Your task to perform on an android device: Open the Play Movies app and select the watchlist tab. Image 0: 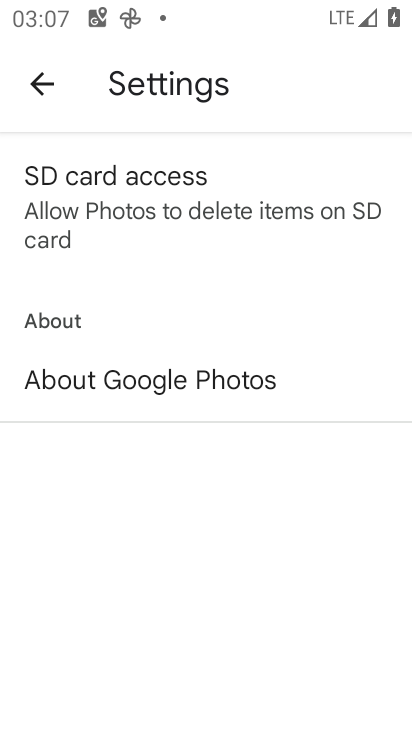
Step 0: press home button
Your task to perform on an android device: Open the Play Movies app and select the watchlist tab. Image 1: 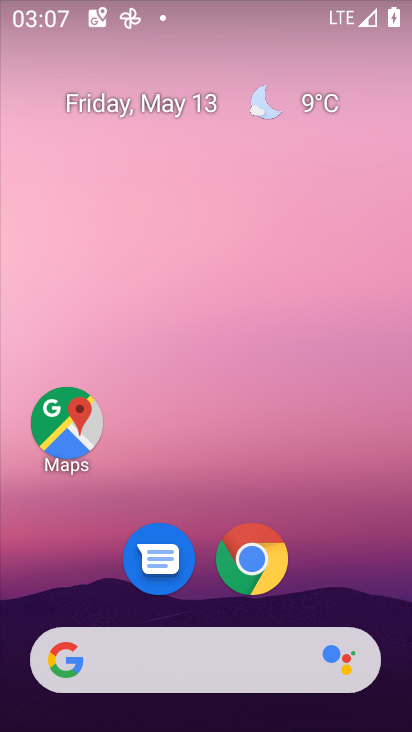
Step 1: drag from (403, 434) to (407, 306)
Your task to perform on an android device: Open the Play Movies app and select the watchlist tab. Image 2: 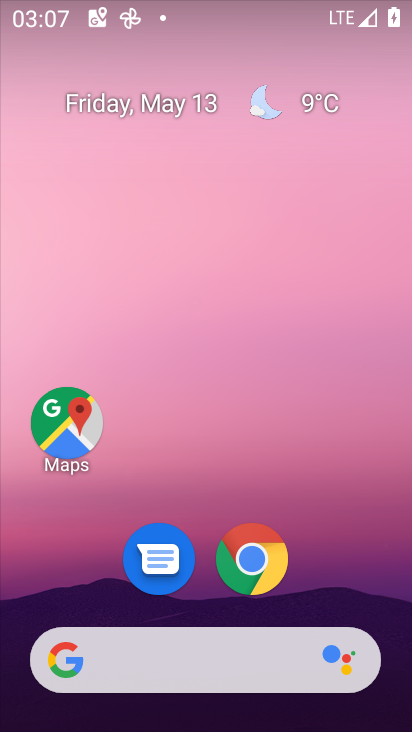
Step 2: drag from (407, 429) to (403, 265)
Your task to perform on an android device: Open the Play Movies app and select the watchlist tab. Image 3: 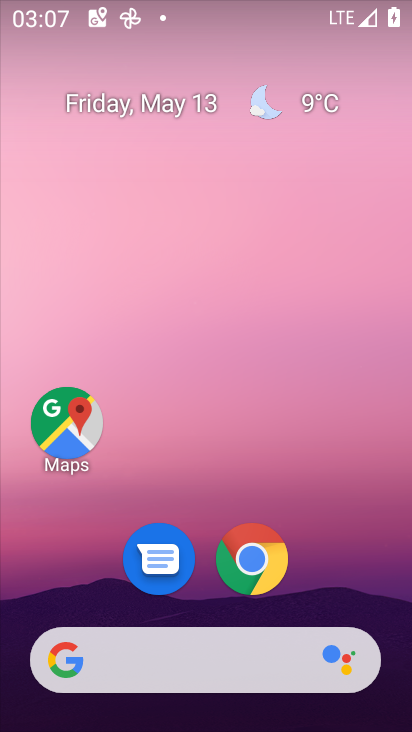
Step 3: drag from (392, 641) to (407, 179)
Your task to perform on an android device: Open the Play Movies app and select the watchlist tab. Image 4: 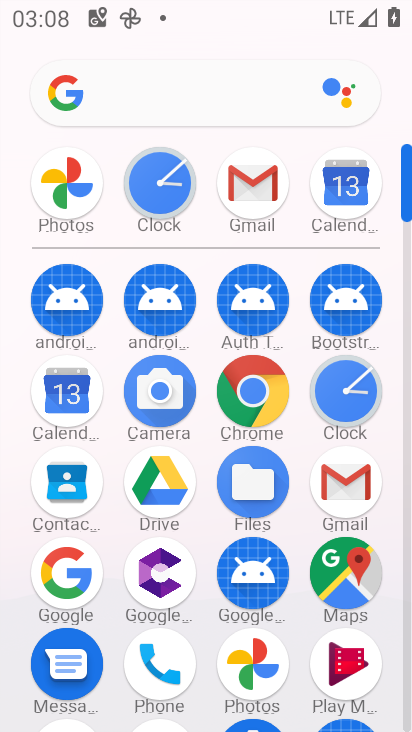
Step 4: click (332, 672)
Your task to perform on an android device: Open the Play Movies app and select the watchlist tab. Image 5: 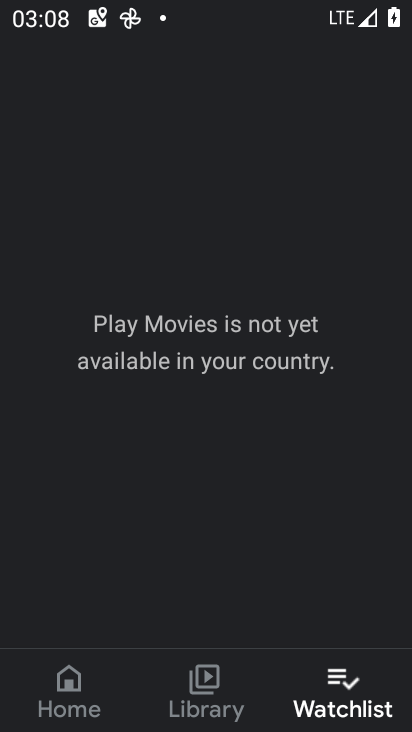
Step 5: click (337, 704)
Your task to perform on an android device: Open the Play Movies app and select the watchlist tab. Image 6: 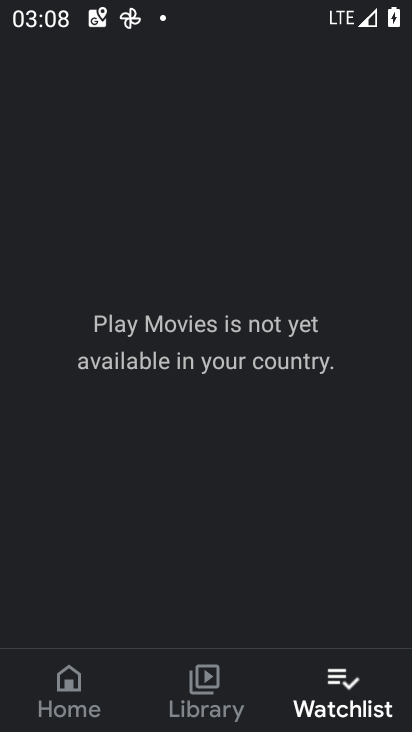
Step 6: task complete